Your task to perform on an android device: turn off airplane mode Image 0: 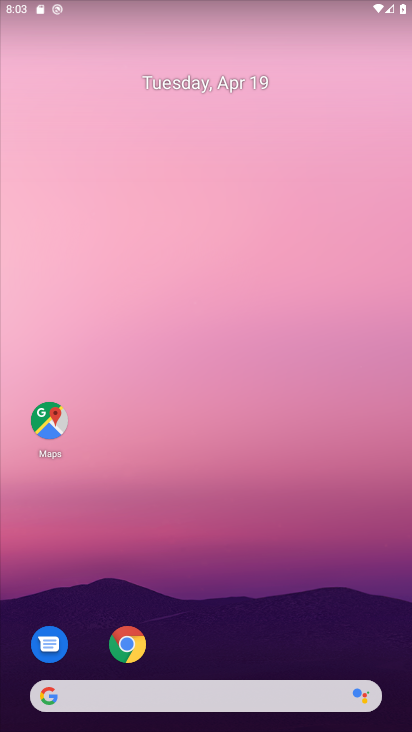
Step 0: drag from (185, 500) to (208, 218)
Your task to perform on an android device: turn off airplane mode Image 1: 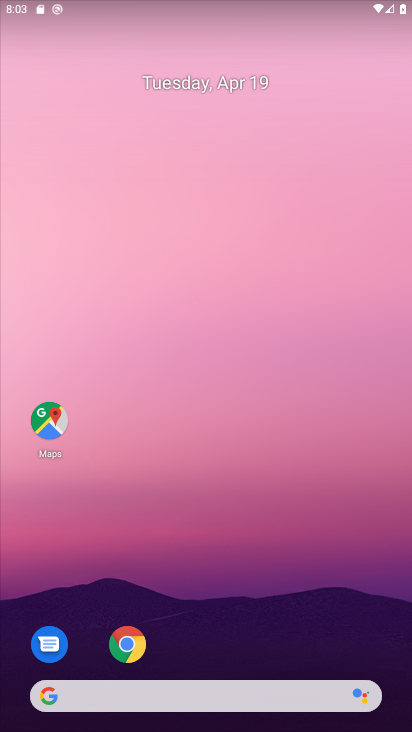
Step 1: drag from (174, 612) to (332, 4)
Your task to perform on an android device: turn off airplane mode Image 2: 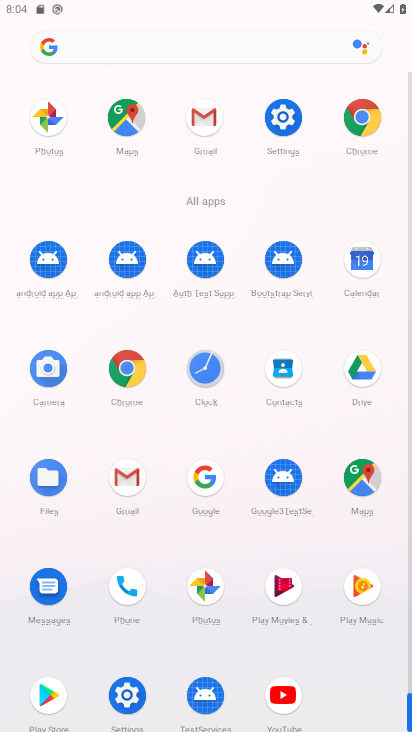
Step 2: click (279, 123)
Your task to perform on an android device: turn off airplane mode Image 3: 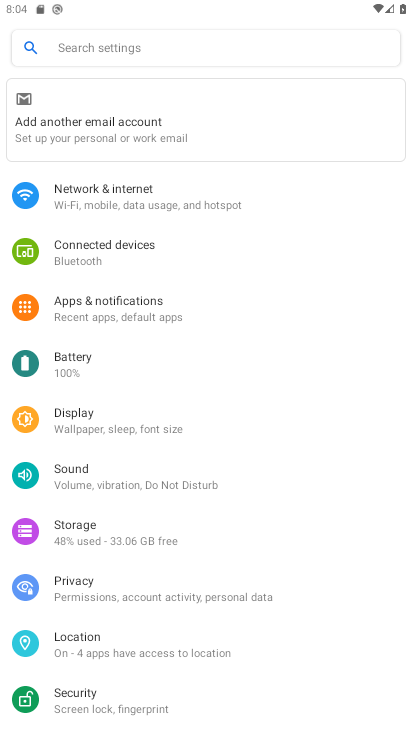
Step 3: click (169, 197)
Your task to perform on an android device: turn off airplane mode Image 4: 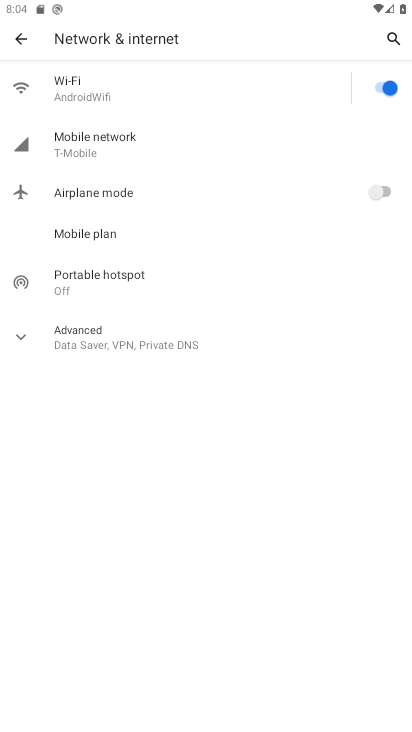
Step 4: task complete